Your task to perform on an android device: set default search engine in the chrome app Image 0: 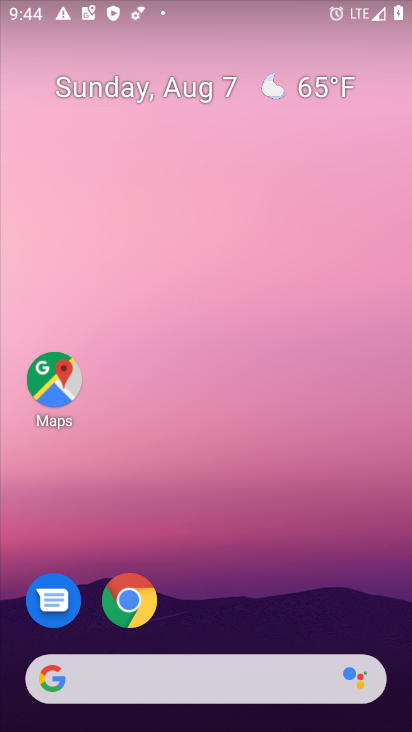
Step 0: drag from (181, 297) to (226, 0)
Your task to perform on an android device: set default search engine in the chrome app Image 1: 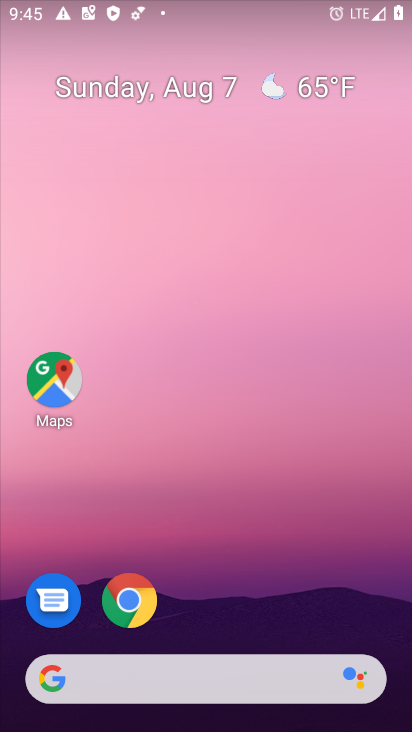
Step 1: click (124, 613)
Your task to perform on an android device: set default search engine in the chrome app Image 2: 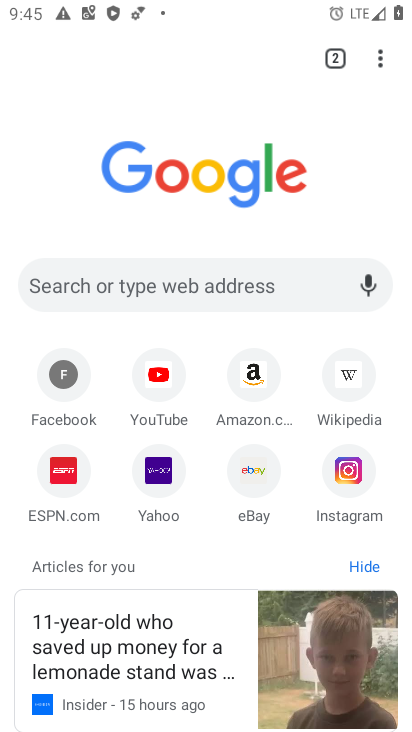
Step 2: click (376, 58)
Your task to perform on an android device: set default search engine in the chrome app Image 3: 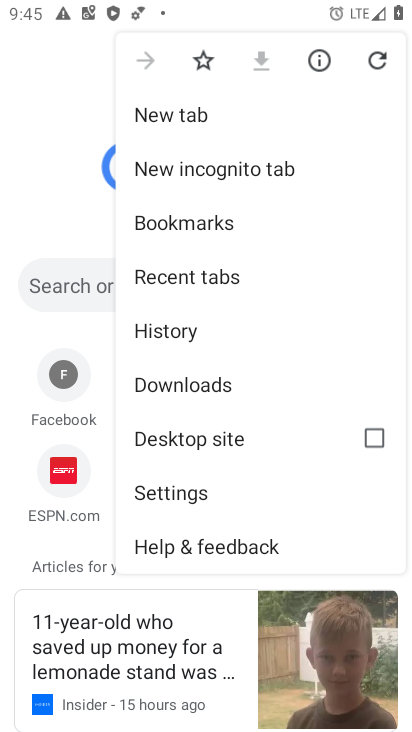
Step 3: click (194, 493)
Your task to perform on an android device: set default search engine in the chrome app Image 4: 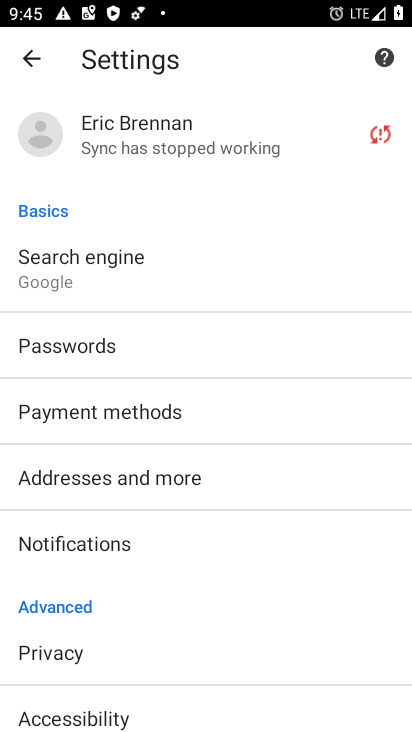
Step 4: click (63, 287)
Your task to perform on an android device: set default search engine in the chrome app Image 5: 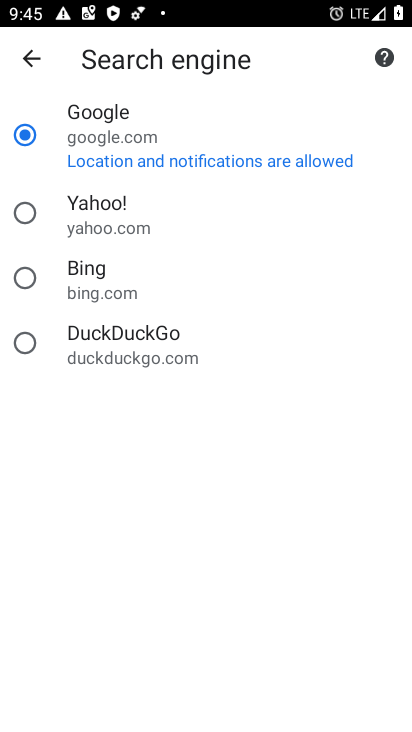
Step 5: click (23, 218)
Your task to perform on an android device: set default search engine in the chrome app Image 6: 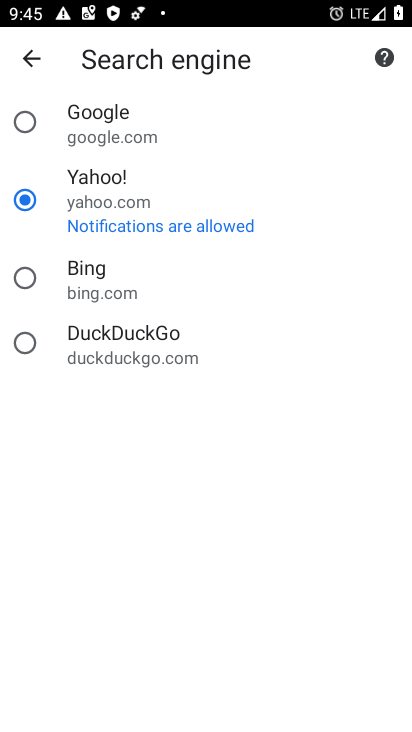
Step 6: task complete